Your task to perform on an android device: turn off translation in the chrome app Image 0: 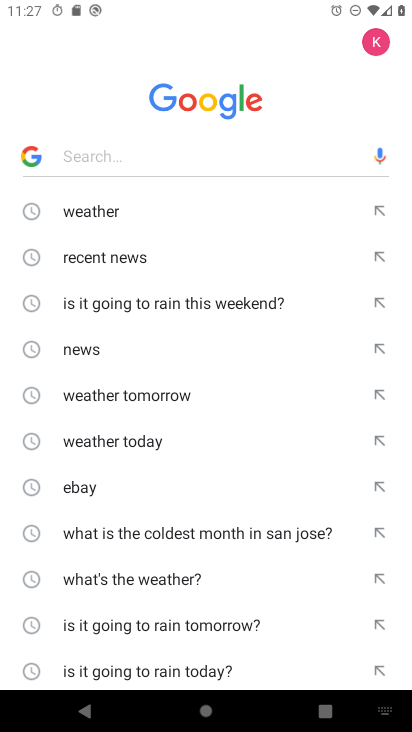
Step 0: press back button
Your task to perform on an android device: turn off translation in the chrome app Image 1: 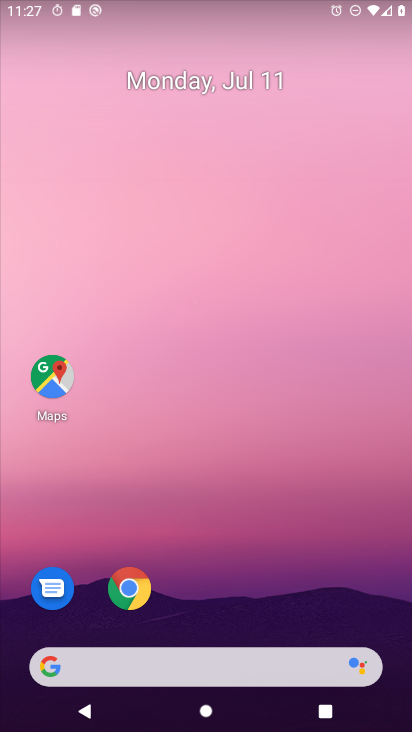
Step 1: click (124, 590)
Your task to perform on an android device: turn off translation in the chrome app Image 2: 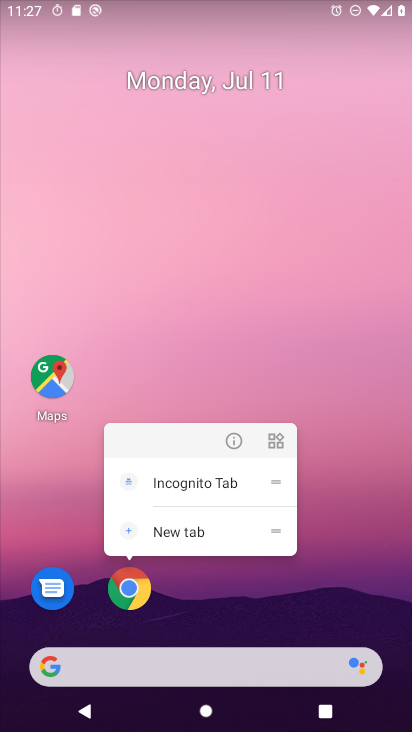
Step 2: click (133, 587)
Your task to perform on an android device: turn off translation in the chrome app Image 3: 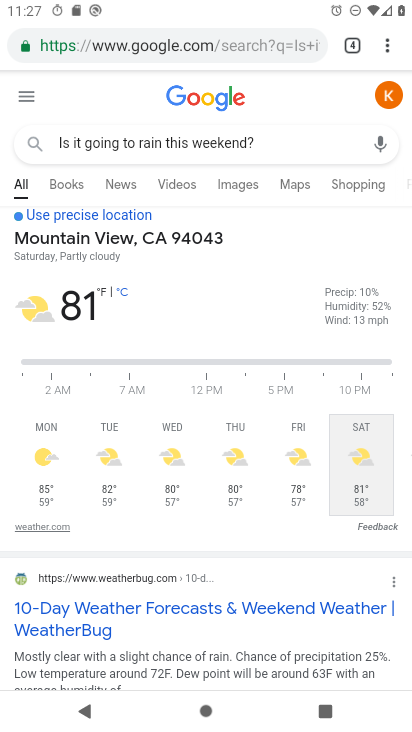
Step 3: drag from (387, 40) to (240, 501)
Your task to perform on an android device: turn off translation in the chrome app Image 4: 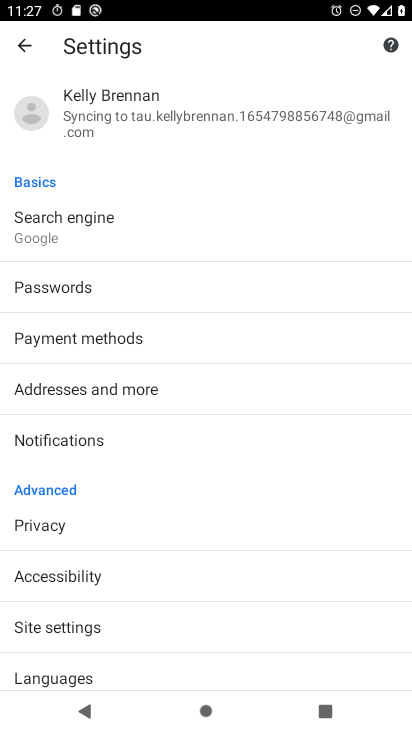
Step 4: click (51, 681)
Your task to perform on an android device: turn off translation in the chrome app Image 5: 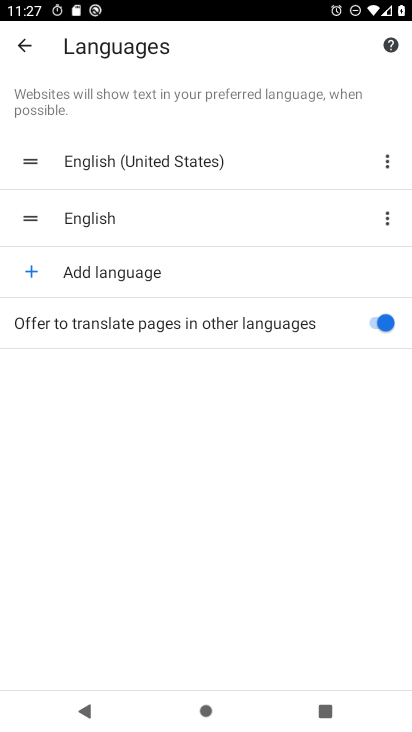
Step 5: click (382, 335)
Your task to perform on an android device: turn off translation in the chrome app Image 6: 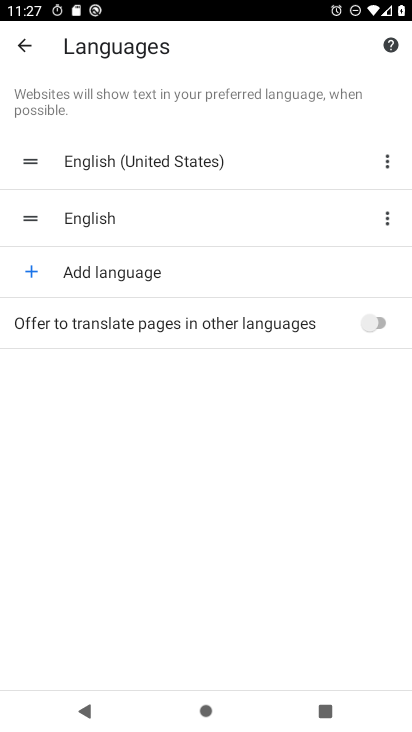
Step 6: task complete